Your task to perform on an android device: Open settings on Google Maps Image 0: 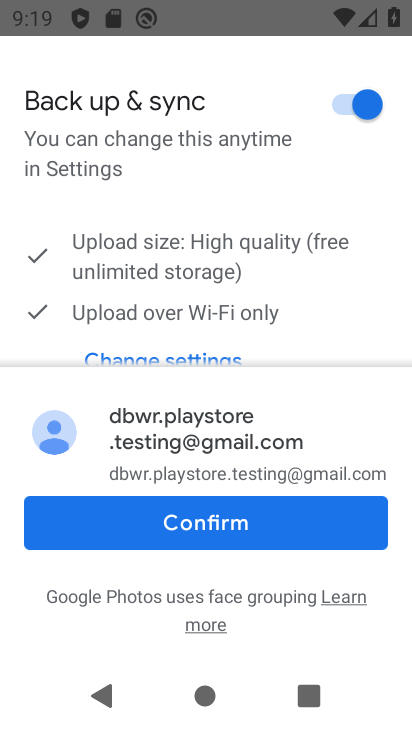
Step 0: press home button
Your task to perform on an android device: Open settings on Google Maps Image 1: 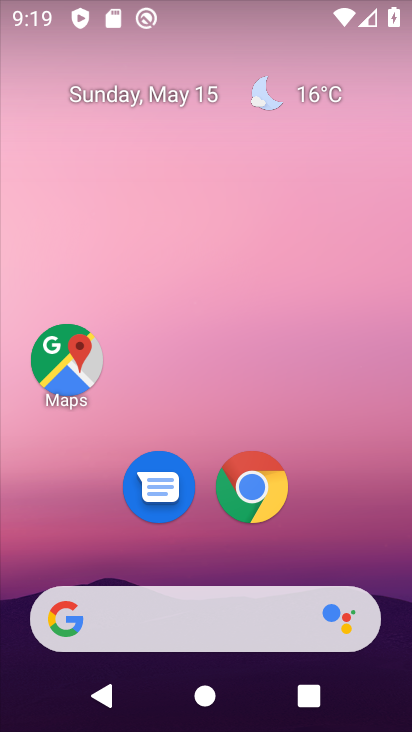
Step 1: click (66, 360)
Your task to perform on an android device: Open settings on Google Maps Image 2: 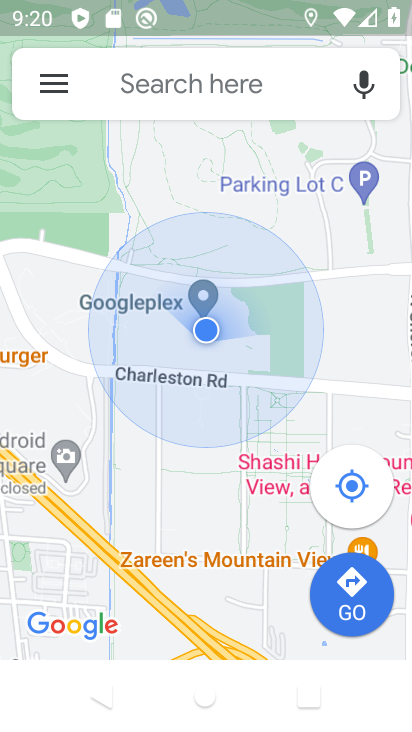
Step 2: click (71, 87)
Your task to perform on an android device: Open settings on Google Maps Image 3: 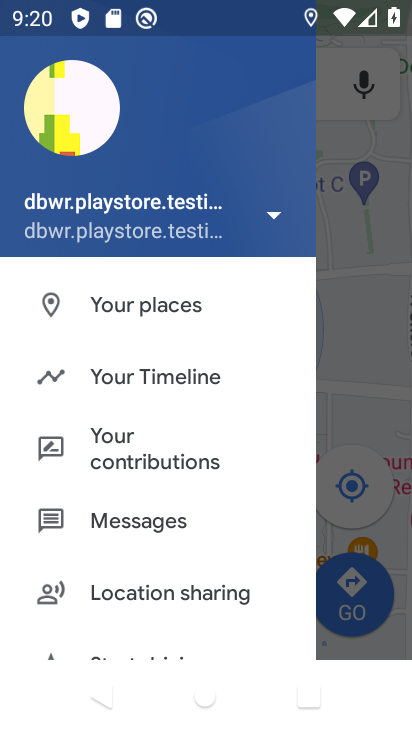
Step 3: drag from (242, 589) to (246, 73)
Your task to perform on an android device: Open settings on Google Maps Image 4: 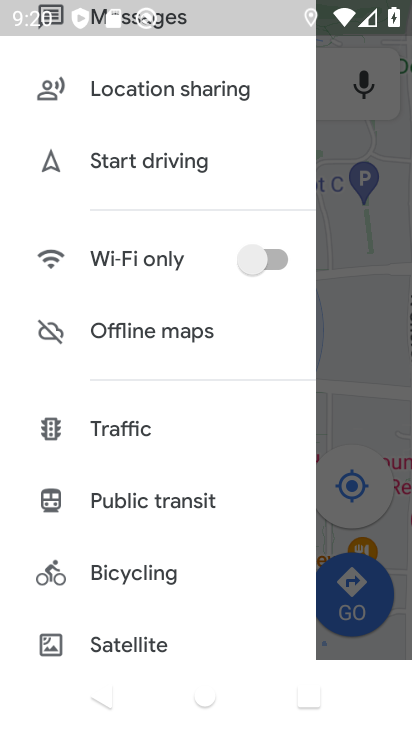
Step 4: drag from (228, 636) to (191, 152)
Your task to perform on an android device: Open settings on Google Maps Image 5: 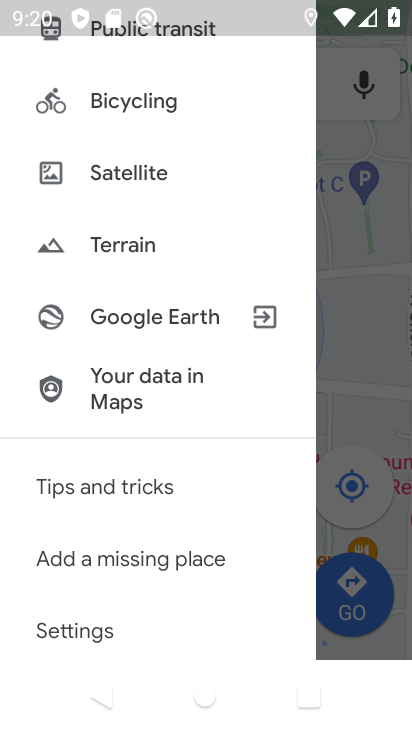
Step 5: drag from (199, 629) to (196, 219)
Your task to perform on an android device: Open settings on Google Maps Image 6: 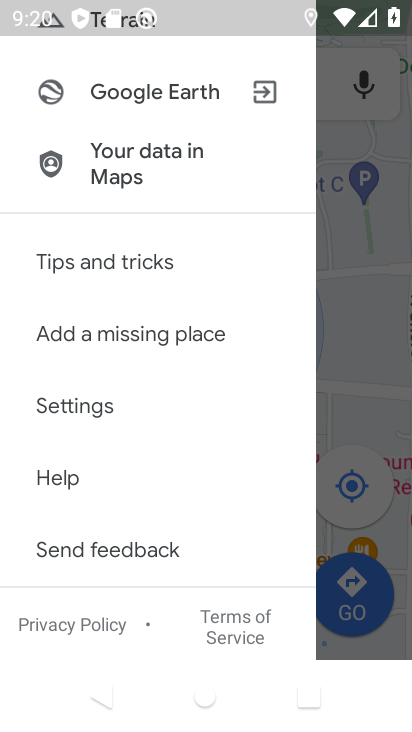
Step 6: click (95, 403)
Your task to perform on an android device: Open settings on Google Maps Image 7: 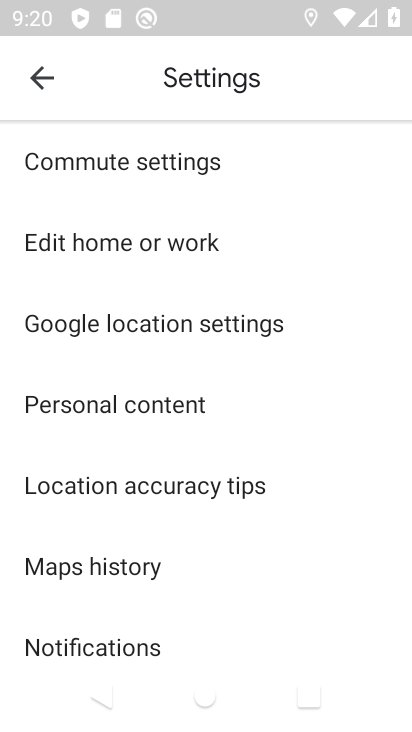
Step 7: task complete